Your task to perform on an android device: open device folders in google photos Image 0: 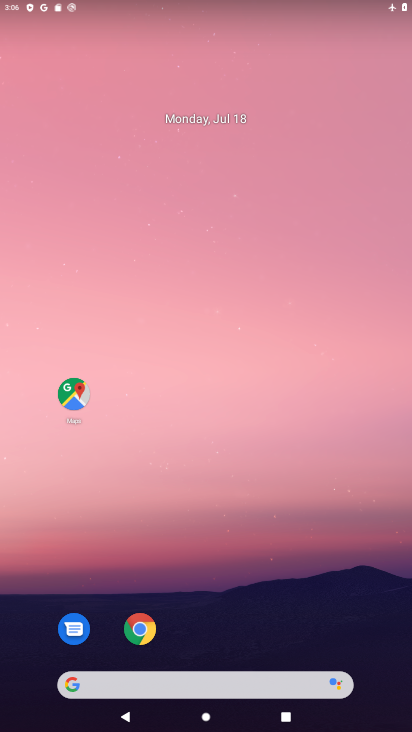
Step 0: drag from (190, 662) to (132, 100)
Your task to perform on an android device: open device folders in google photos Image 1: 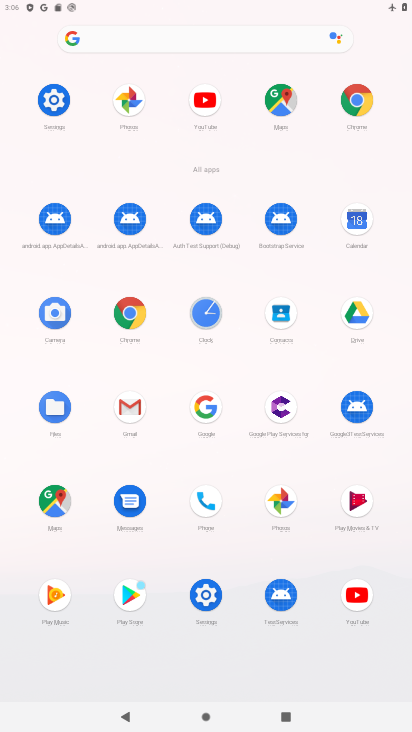
Step 1: click (280, 500)
Your task to perform on an android device: open device folders in google photos Image 2: 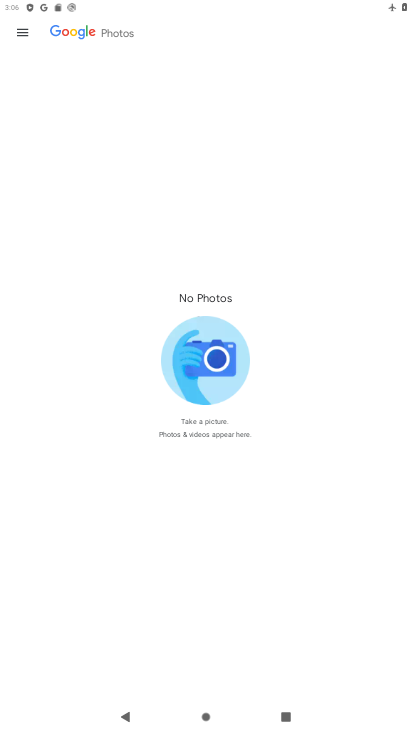
Step 2: click (24, 28)
Your task to perform on an android device: open device folders in google photos Image 3: 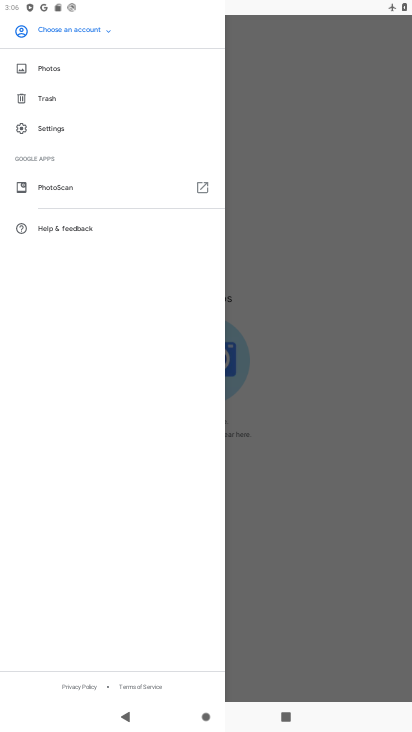
Step 3: click (61, 125)
Your task to perform on an android device: open device folders in google photos Image 4: 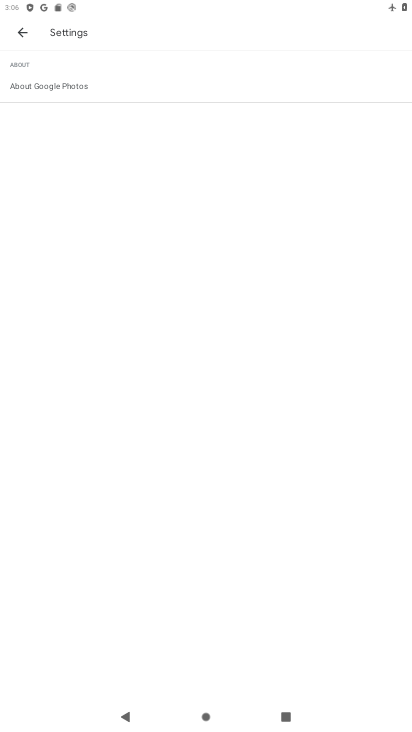
Step 4: click (26, 27)
Your task to perform on an android device: open device folders in google photos Image 5: 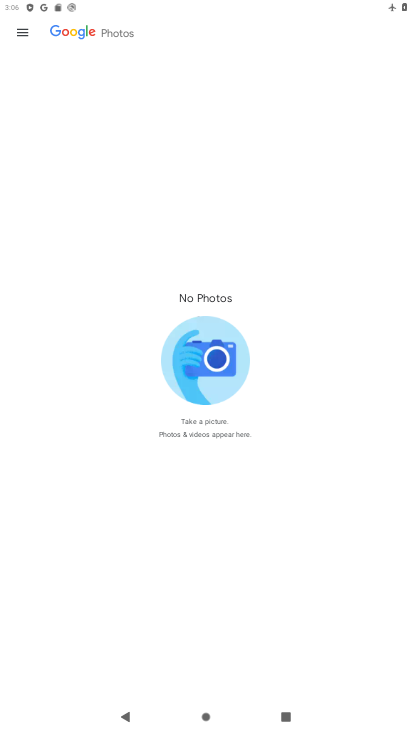
Step 5: task complete